Your task to perform on an android device: turn on sleep mode Image 0: 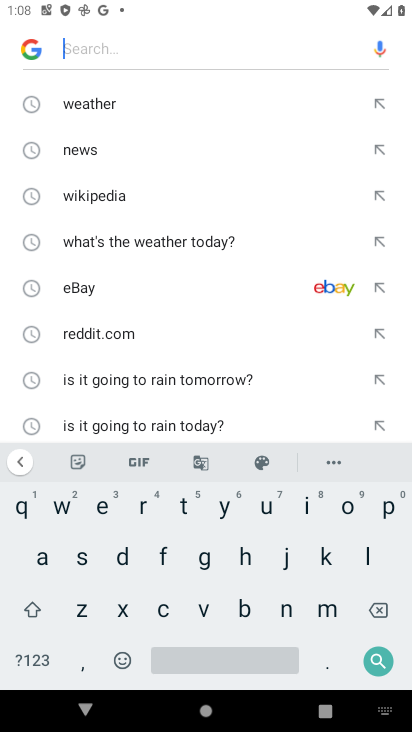
Step 0: press home button
Your task to perform on an android device: turn on sleep mode Image 1: 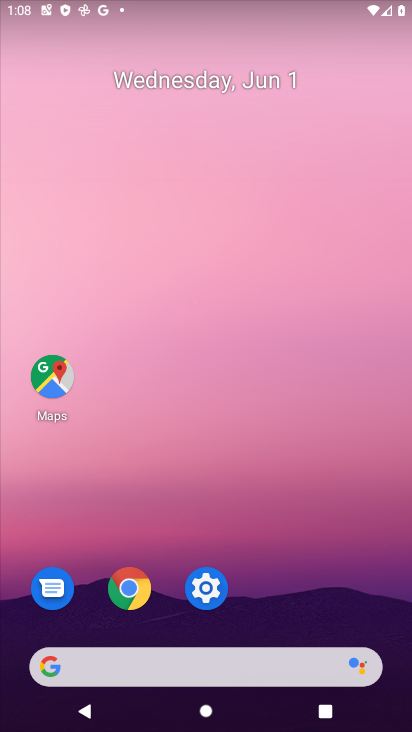
Step 1: drag from (272, 692) to (287, 27)
Your task to perform on an android device: turn on sleep mode Image 2: 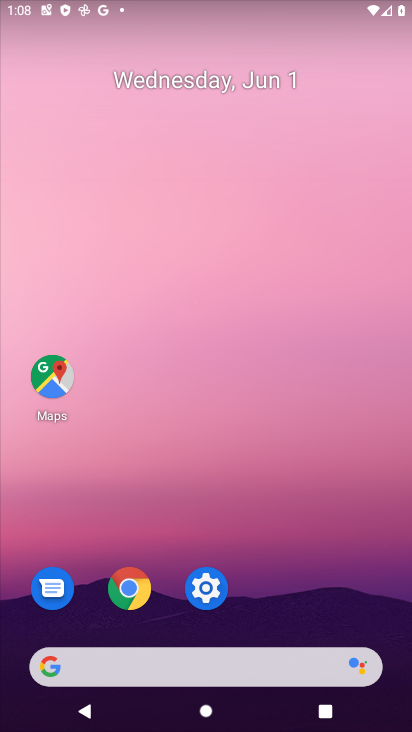
Step 2: drag from (232, 687) to (288, 133)
Your task to perform on an android device: turn on sleep mode Image 3: 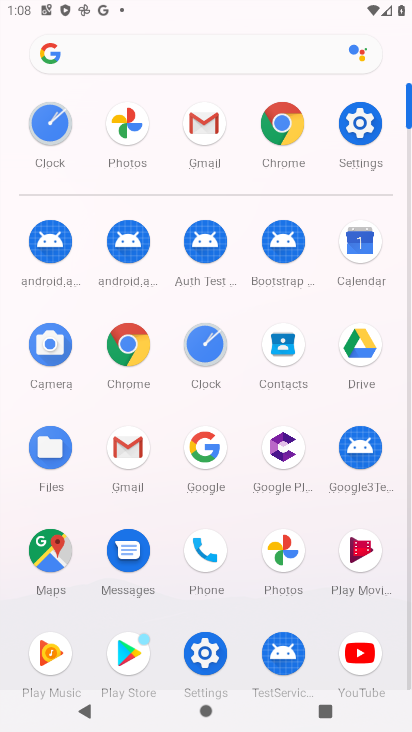
Step 3: click (372, 131)
Your task to perform on an android device: turn on sleep mode Image 4: 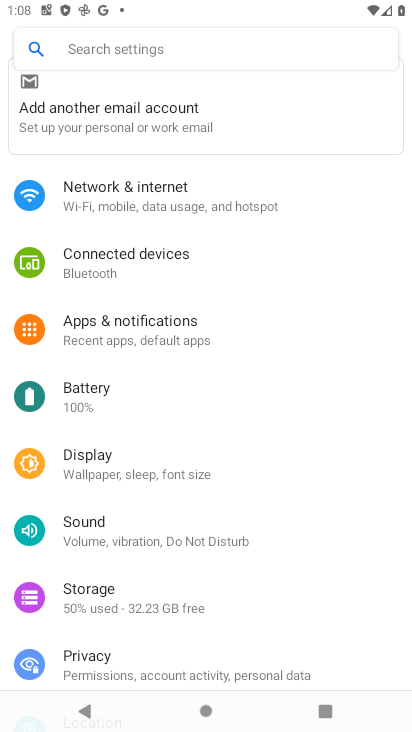
Step 4: click (108, 62)
Your task to perform on an android device: turn on sleep mode Image 5: 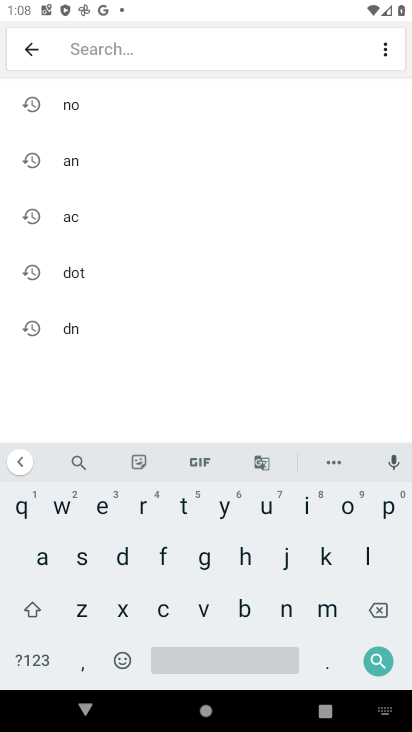
Step 5: click (83, 558)
Your task to perform on an android device: turn on sleep mode Image 6: 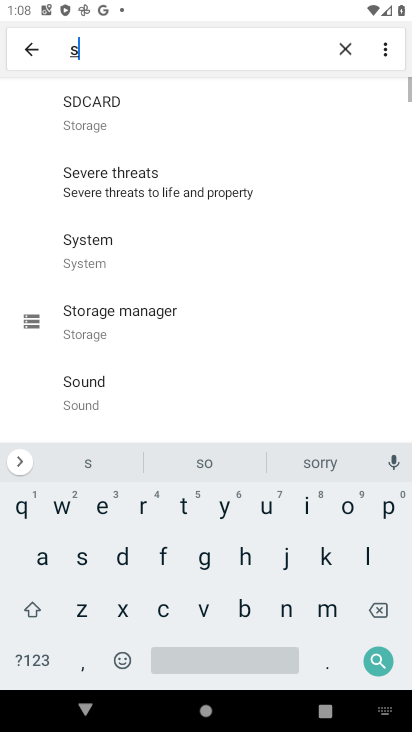
Step 6: click (369, 558)
Your task to perform on an android device: turn on sleep mode Image 7: 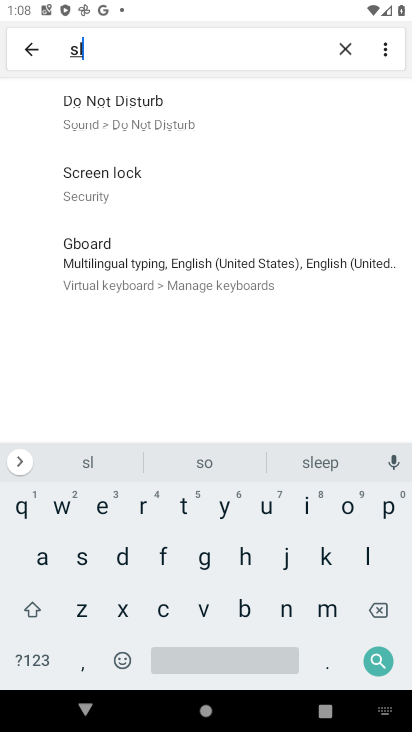
Step 7: click (141, 114)
Your task to perform on an android device: turn on sleep mode Image 8: 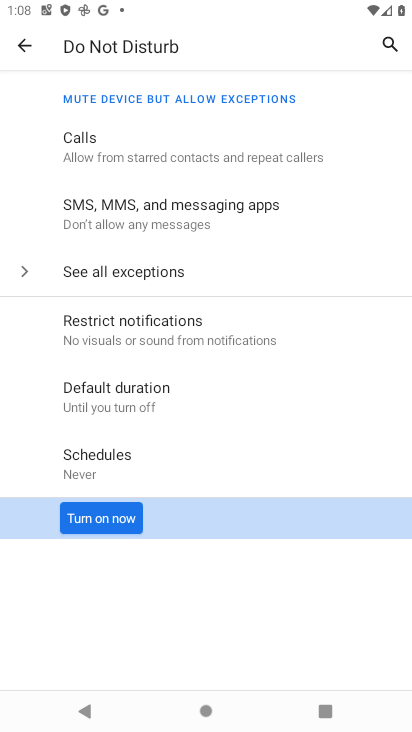
Step 8: task complete